Your task to perform on an android device: Open calendar and show me the first week of next month Image 0: 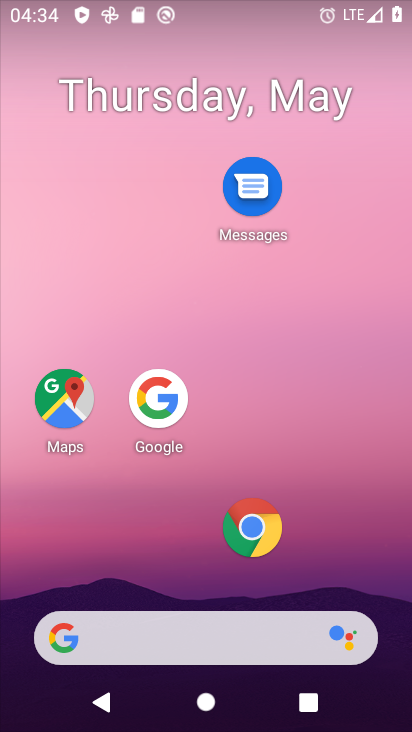
Step 0: drag from (192, 582) to (193, 121)
Your task to perform on an android device: Open calendar and show me the first week of next month Image 1: 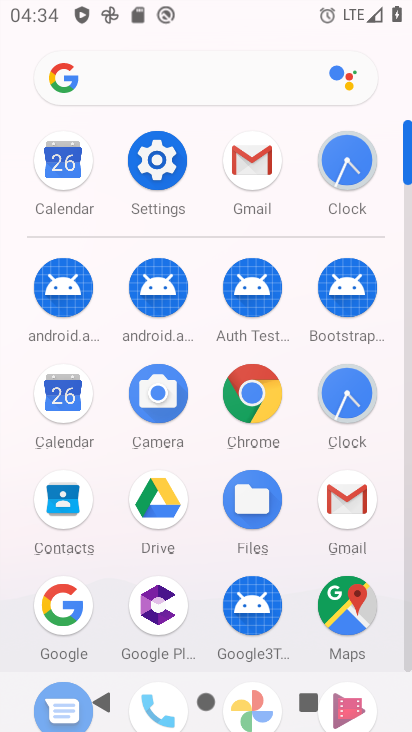
Step 1: click (64, 381)
Your task to perform on an android device: Open calendar and show me the first week of next month Image 2: 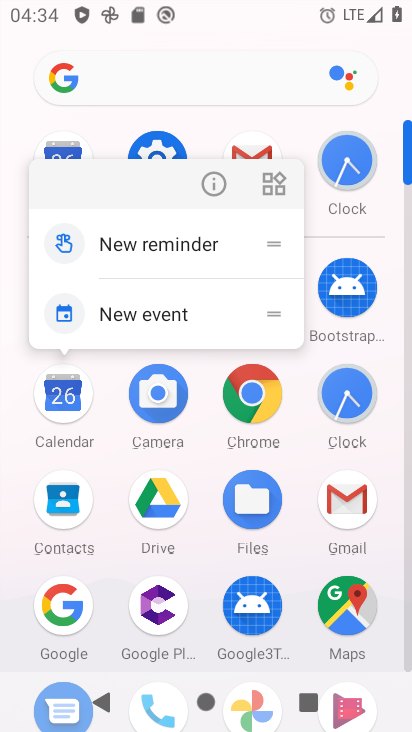
Step 2: click (208, 173)
Your task to perform on an android device: Open calendar and show me the first week of next month Image 3: 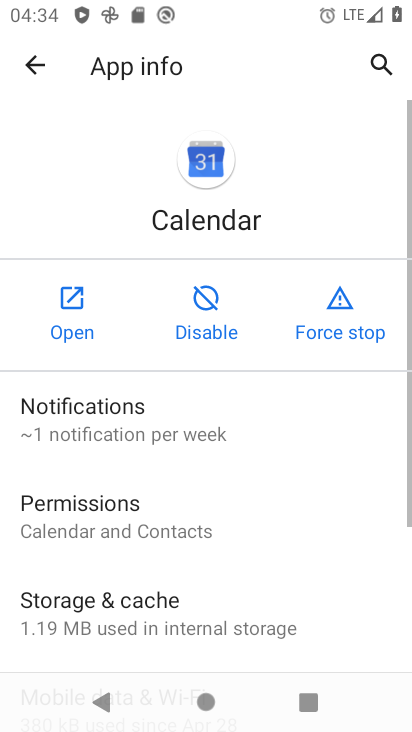
Step 3: click (66, 329)
Your task to perform on an android device: Open calendar and show me the first week of next month Image 4: 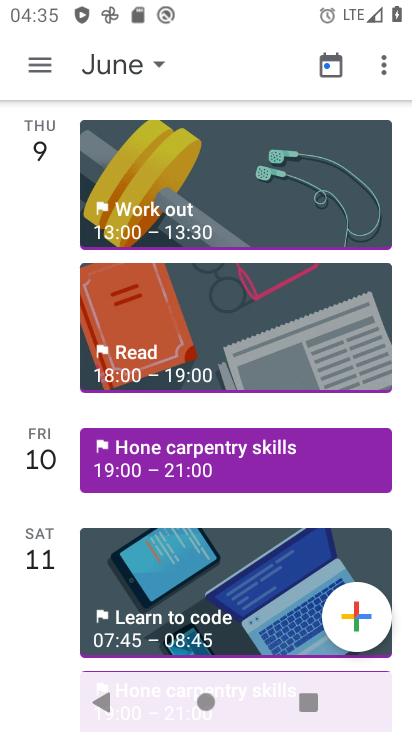
Step 4: drag from (197, 534) to (288, 151)
Your task to perform on an android device: Open calendar and show me the first week of next month Image 5: 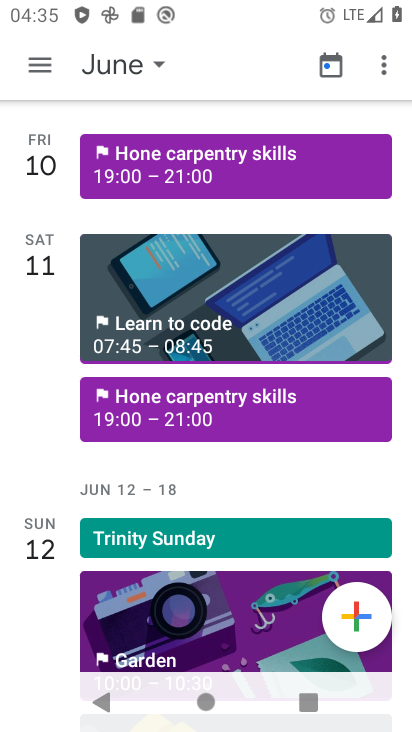
Step 5: click (122, 64)
Your task to perform on an android device: Open calendar and show me the first week of next month Image 6: 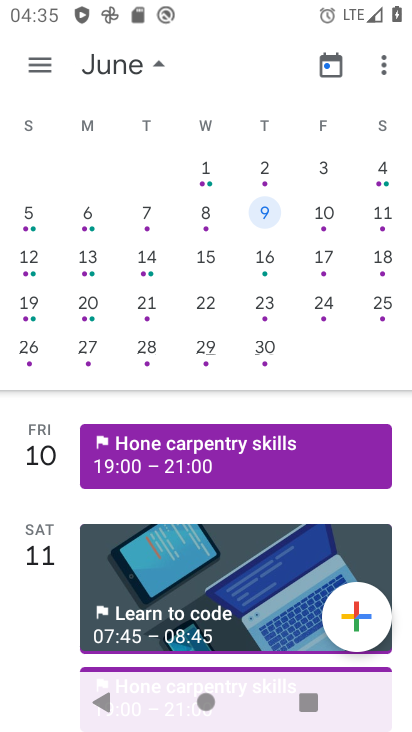
Step 6: click (266, 170)
Your task to perform on an android device: Open calendar and show me the first week of next month Image 7: 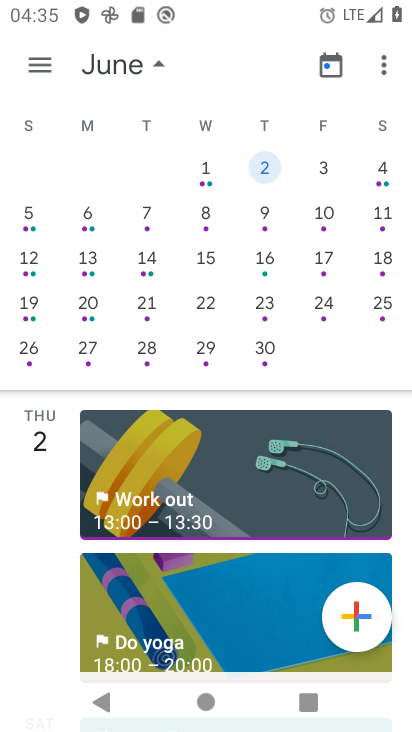
Step 7: task complete